Your task to perform on an android device: Open Youtube and go to "Your channel" Image 0: 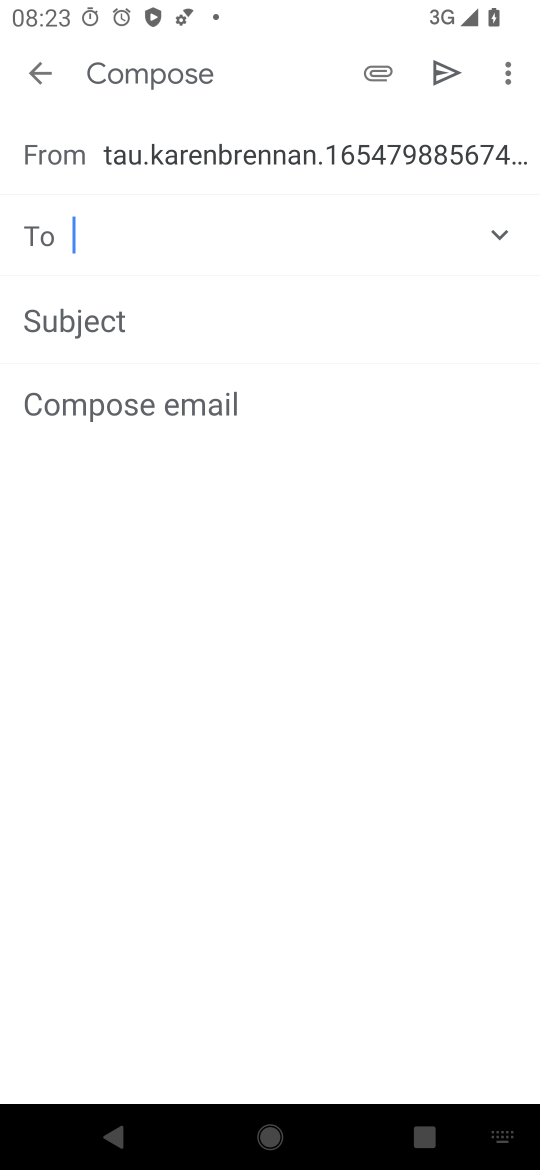
Step 0: press home button
Your task to perform on an android device: Open Youtube and go to "Your channel" Image 1: 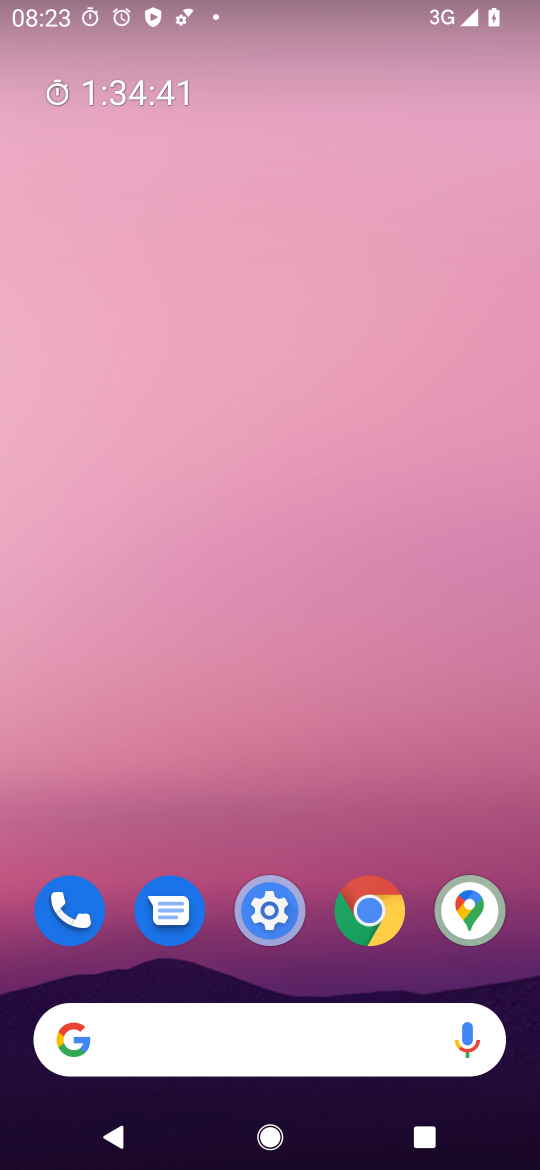
Step 1: click (372, 348)
Your task to perform on an android device: Open Youtube and go to "Your channel" Image 2: 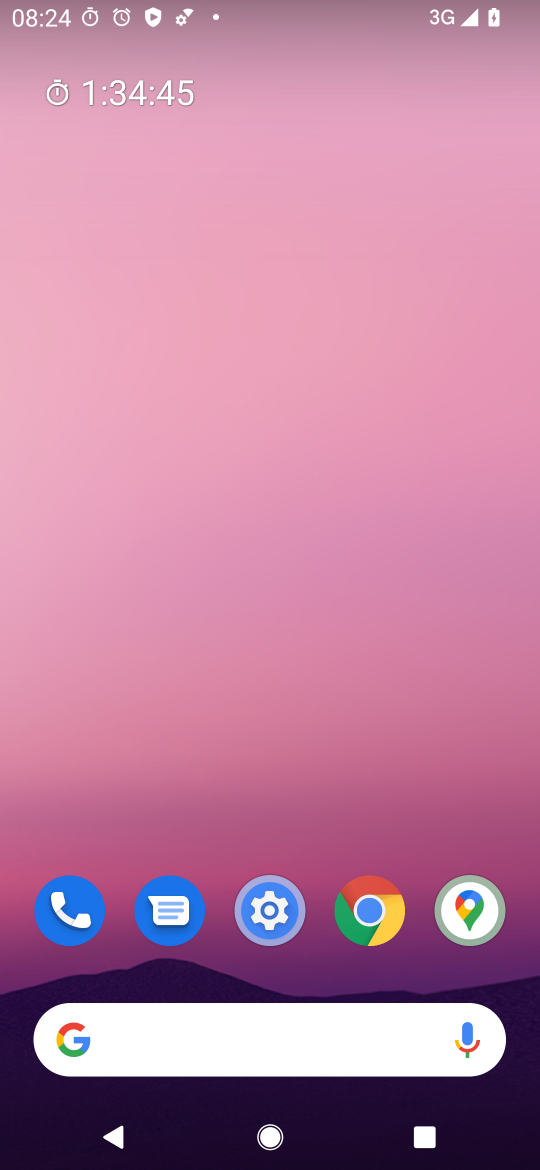
Step 2: drag from (274, 1027) to (204, 214)
Your task to perform on an android device: Open Youtube and go to "Your channel" Image 3: 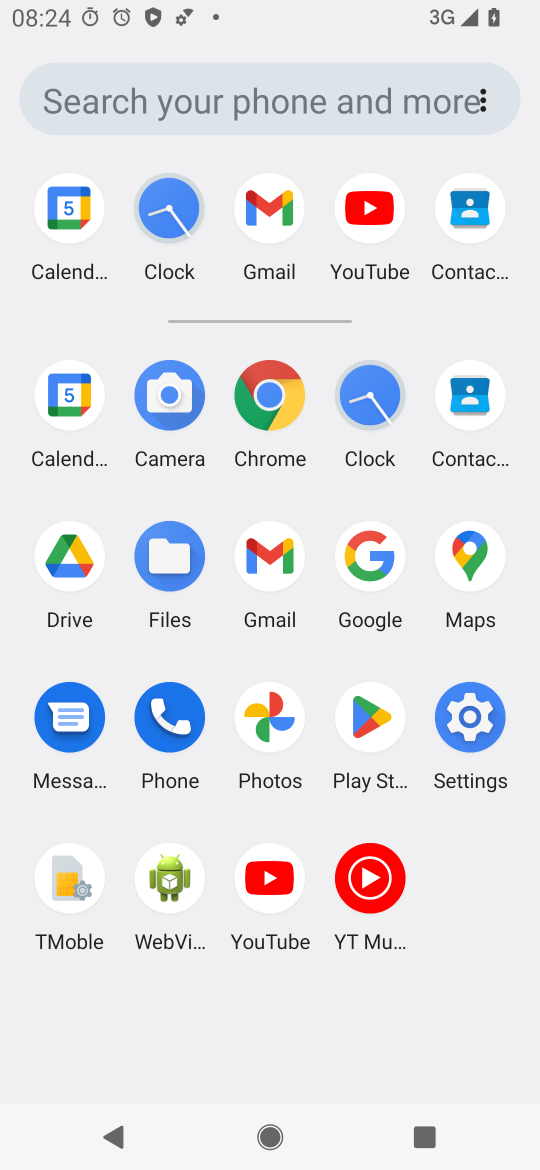
Step 3: click (275, 886)
Your task to perform on an android device: Open Youtube and go to "Your channel" Image 4: 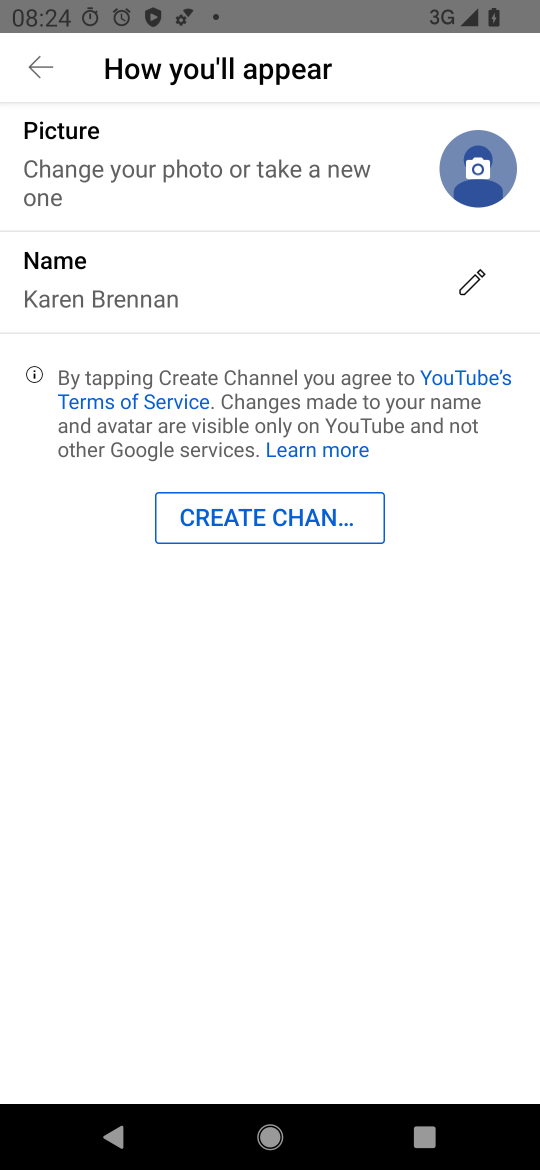
Step 4: task complete